Your task to perform on an android device: turn off smart reply in the gmail app Image 0: 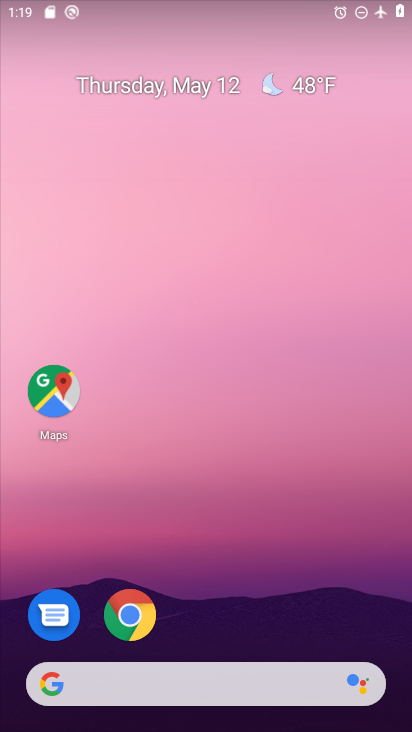
Step 0: drag from (297, 674) to (305, 4)
Your task to perform on an android device: turn off smart reply in the gmail app Image 1: 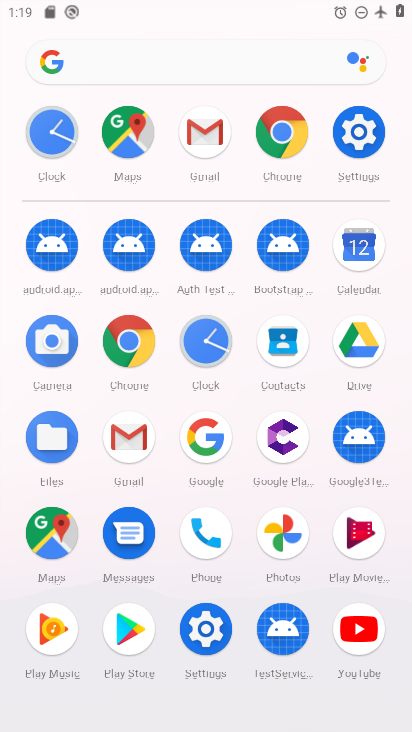
Step 1: click (118, 459)
Your task to perform on an android device: turn off smart reply in the gmail app Image 2: 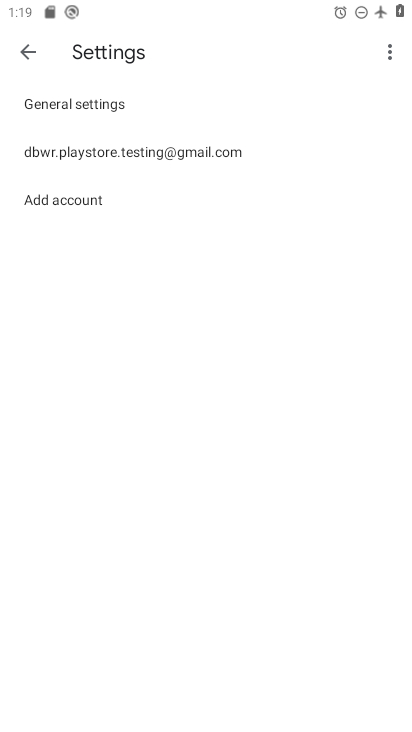
Step 2: click (216, 154)
Your task to perform on an android device: turn off smart reply in the gmail app Image 3: 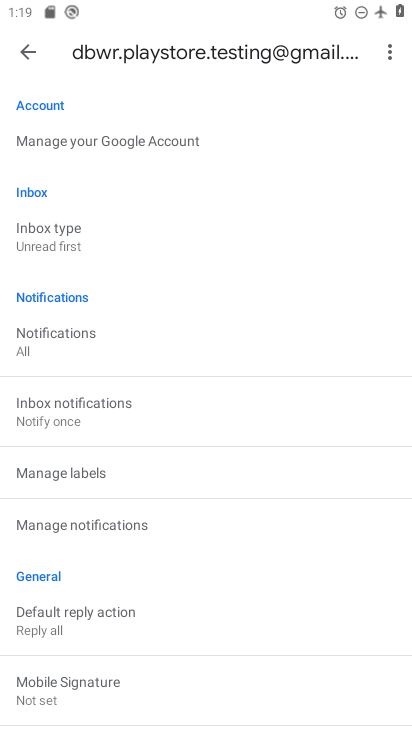
Step 3: drag from (222, 614) to (283, 101)
Your task to perform on an android device: turn off smart reply in the gmail app Image 4: 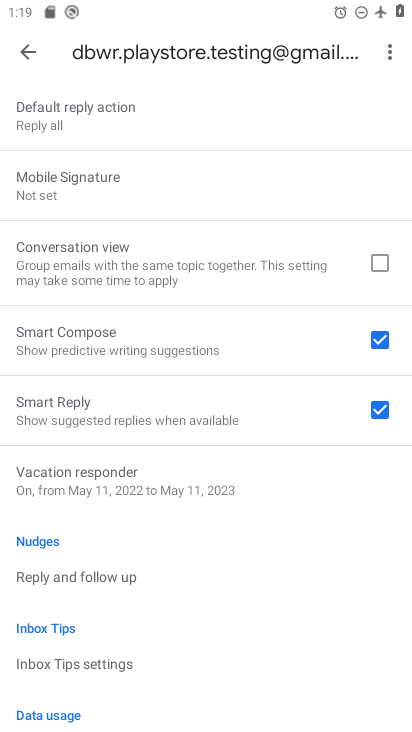
Step 4: click (376, 410)
Your task to perform on an android device: turn off smart reply in the gmail app Image 5: 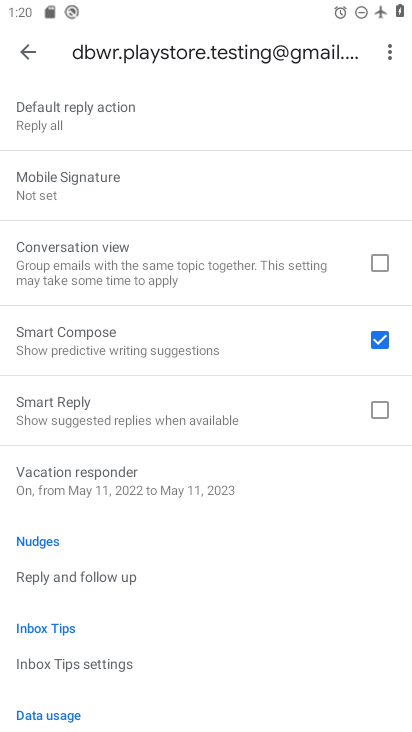
Step 5: task complete